Your task to perform on an android device: Open Youtube and go to "Your channel" Image 0: 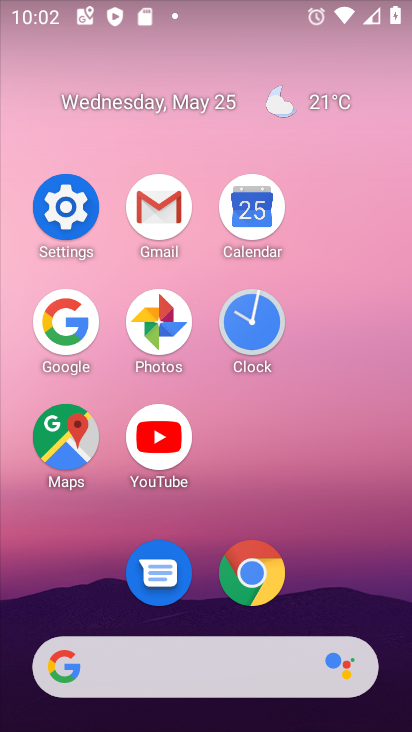
Step 0: click (176, 445)
Your task to perform on an android device: Open Youtube and go to "Your channel" Image 1: 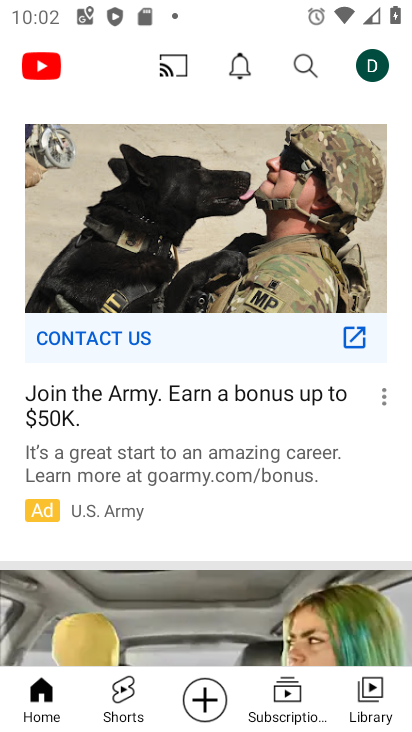
Step 1: click (366, 70)
Your task to perform on an android device: Open Youtube and go to "Your channel" Image 2: 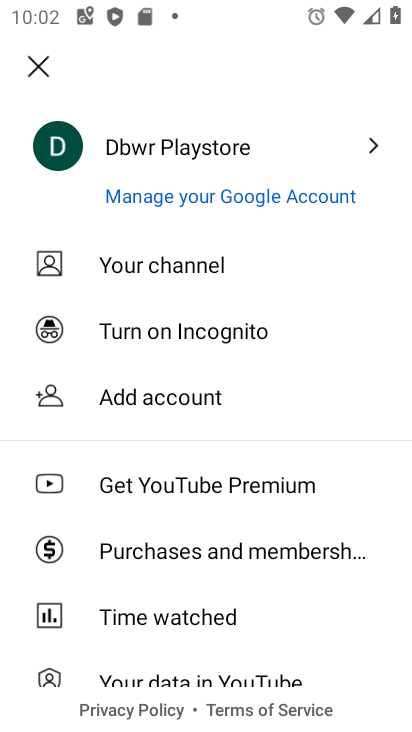
Step 2: click (209, 267)
Your task to perform on an android device: Open Youtube and go to "Your channel" Image 3: 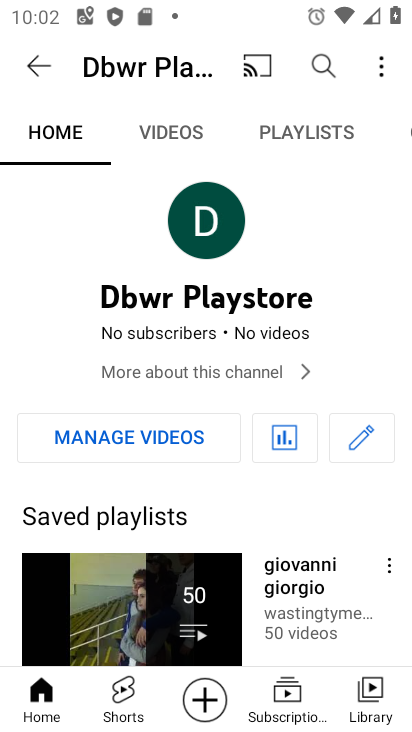
Step 3: task complete